Your task to perform on an android device: turn off airplane mode Image 0: 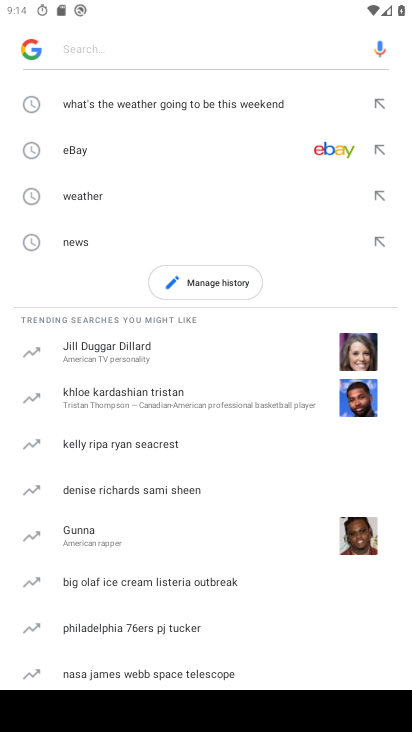
Step 0: press home button
Your task to perform on an android device: turn off airplane mode Image 1: 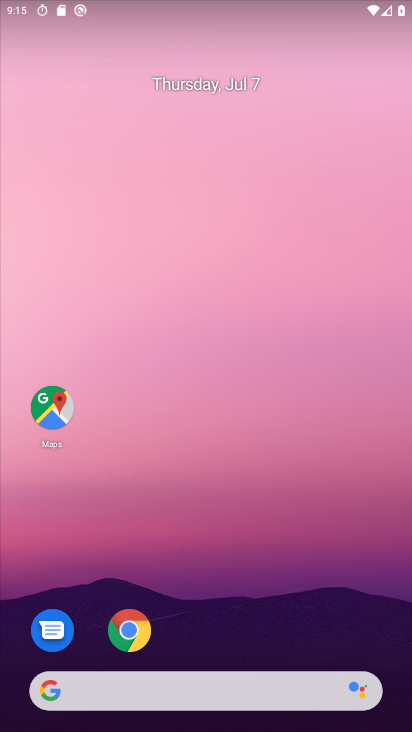
Step 1: drag from (38, 718) to (336, 36)
Your task to perform on an android device: turn off airplane mode Image 2: 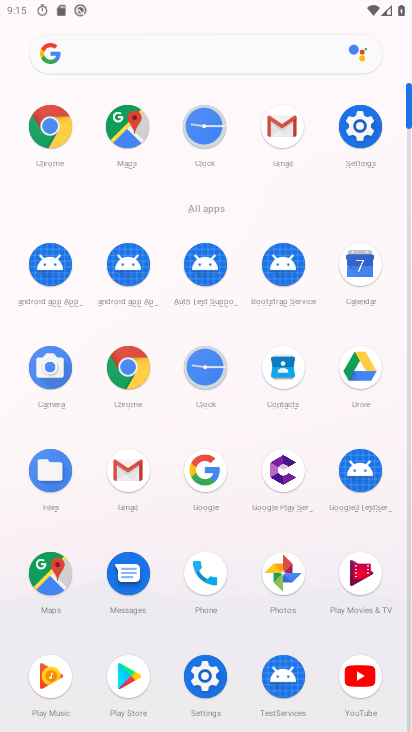
Step 2: click (210, 683)
Your task to perform on an android device: turn off airplane mode Image 3: 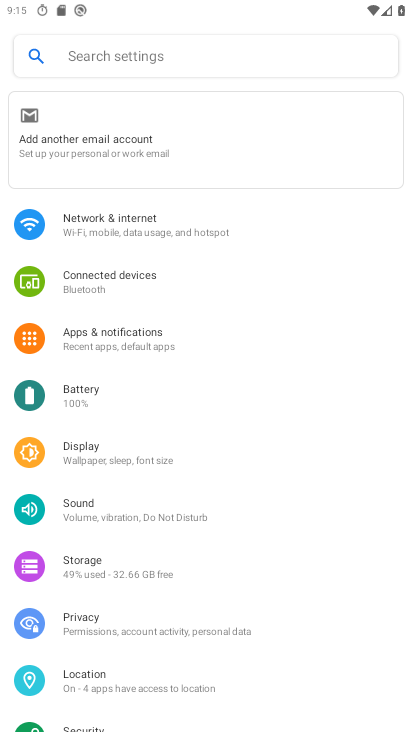
Step 3: click (148, 226)
Your task to perform on an android device: turn off airplane mode Image 4: 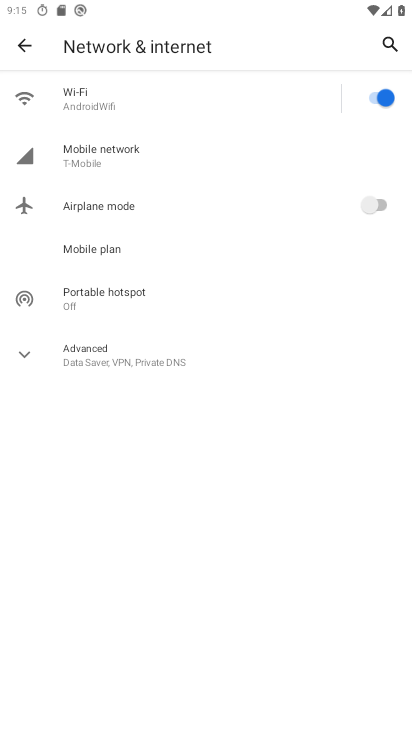
Step 4: task complete